Your task to perform on an android device: When is my next meeting? Image 0: 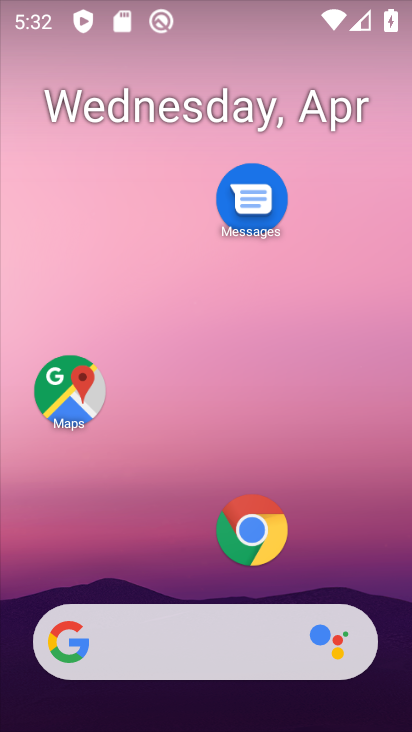
Step 0: drag from (150, 554) to (255, 33)
Your task to perform on an android device: When is my next meeting? Image 1: 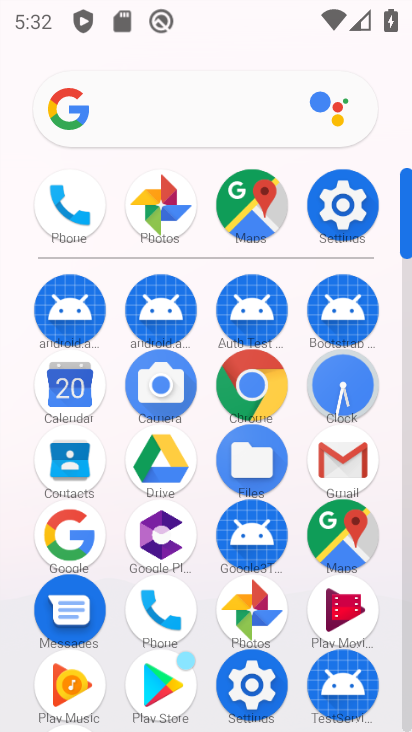
Step 1: click (68, 392)
Your task to perform on an android device: When is my next meeting? Image 2: 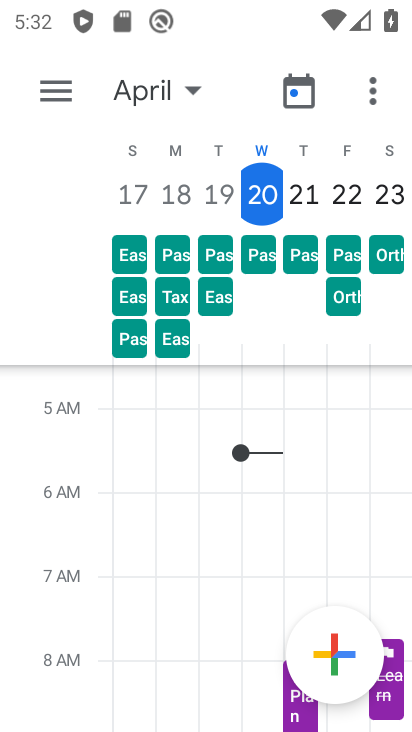
Step 2: click (190, 89)
Your task to perform on an android device: When is my next meeting? Image 3: 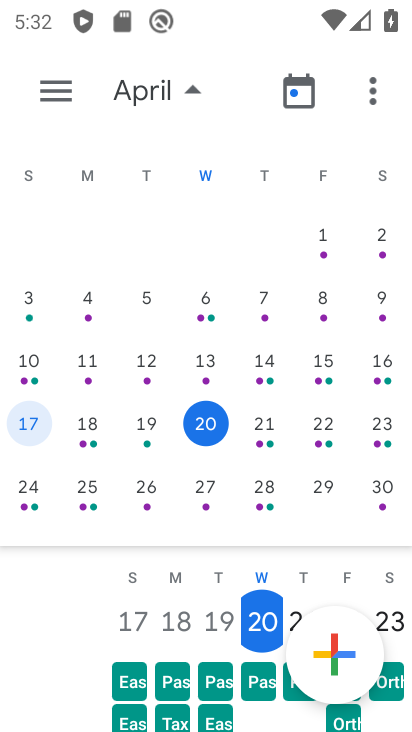
Step 3: click (99, 494)
Your task to perform on an android device: When is my next meeting? Image 4: 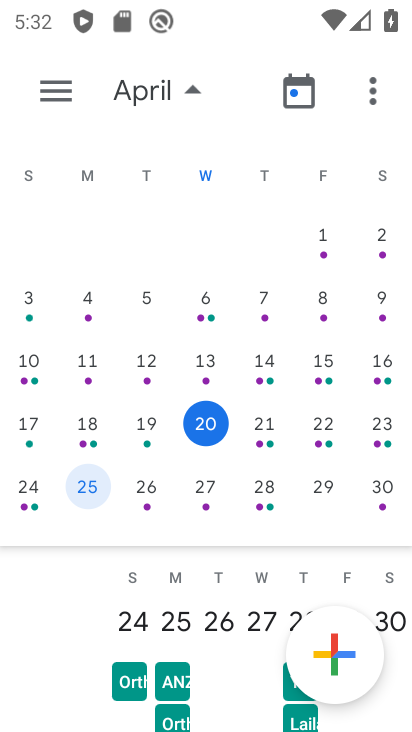
Step 4: click (40, 97)
Your task to perform on an android device: When is my next meeting? Image 5: 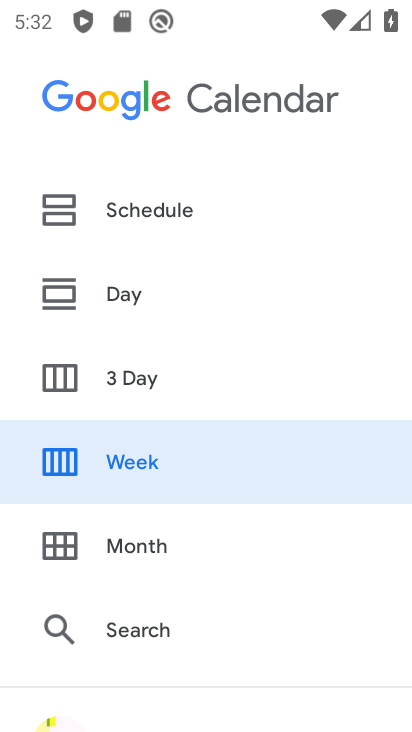
Step 5: click (143, 467)
Your task to perform on an android device: When is my next meeting? Image 6: 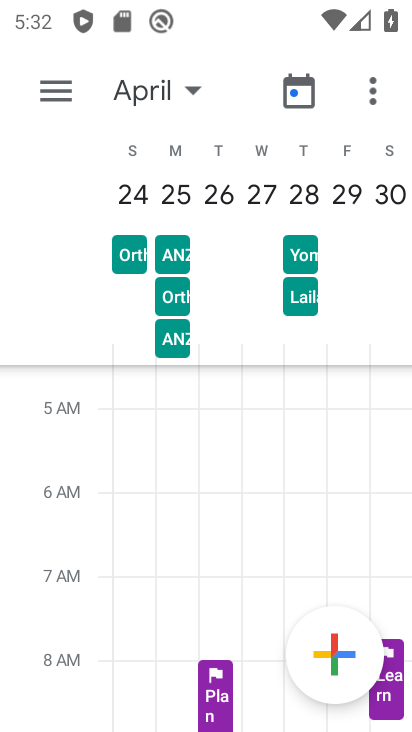
Step 6: task complete